Your task to perform on an android device: show emergency info Image 0: 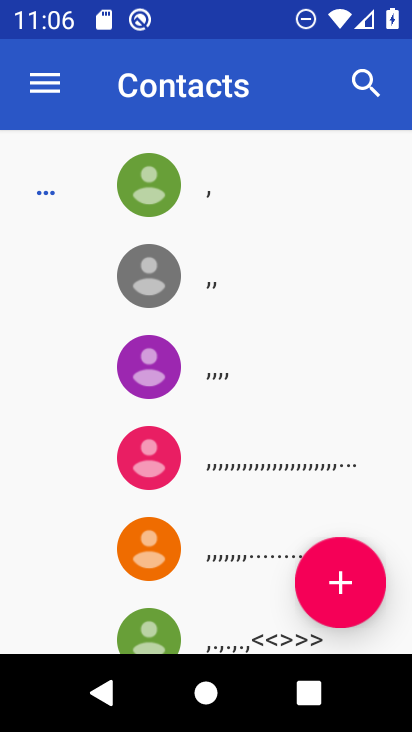
Step 0: click (334, 521)
Your task to perform on an android device: show emergency info Image 1: 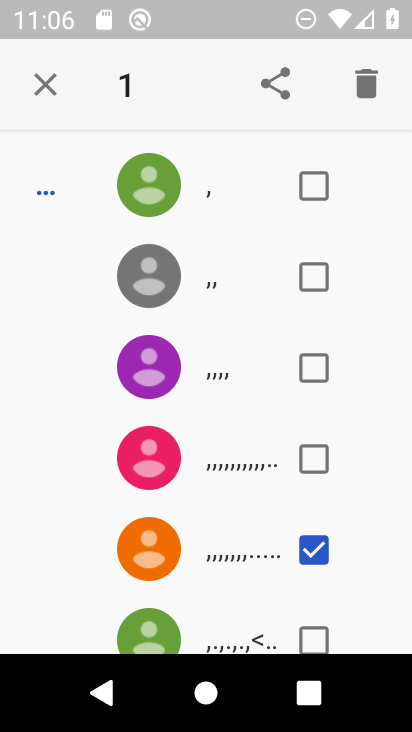
Step 1: press home button
Your task to perform on an android device: show emergency info Image 2: 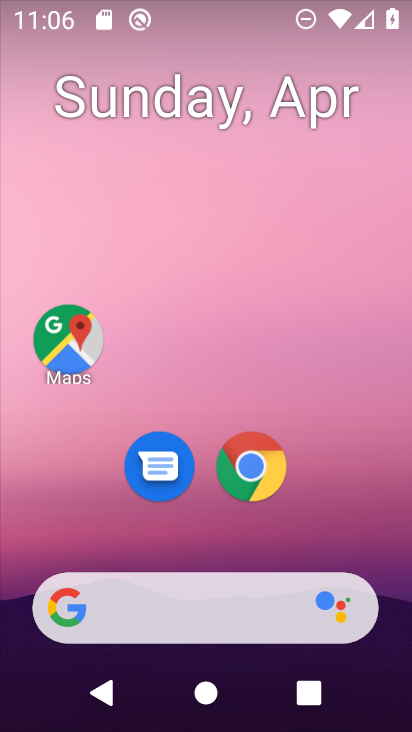
Step 2: drag from (378, 522) to (370, 107)
Your task to perform on an android device: show emergency info Image 3: 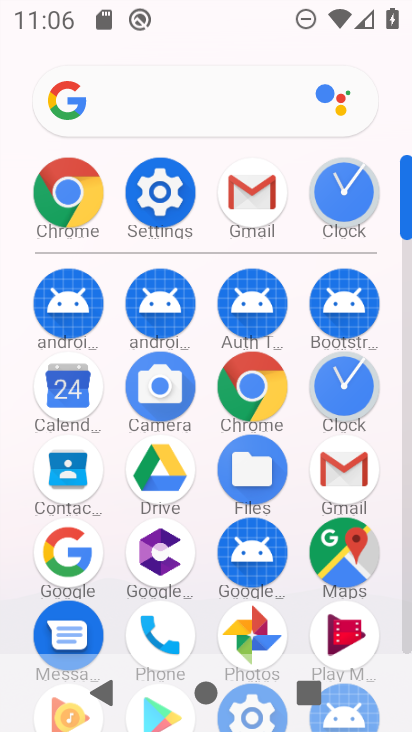
Step 3: click (159, 207)
Your task to perform on an android device: show emergency info Image 4: 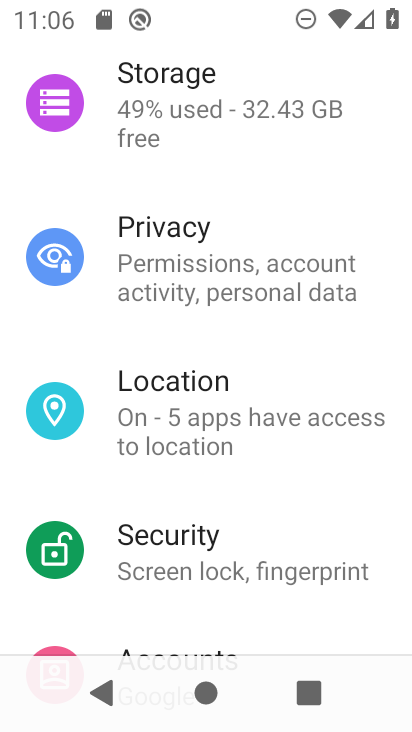
Step 4: drag from (368, 493) to (370, 346)
Your task to perform on an android device: show emergency info Image 5: 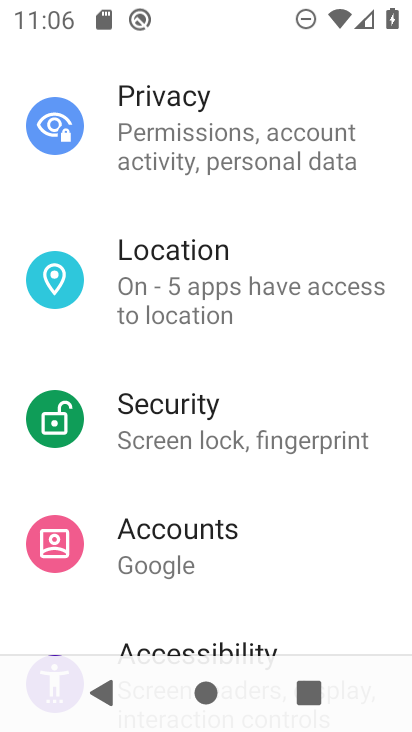
Step 5: drag from (355, 580) to (368, 396)
Your task to perform on an android device: show emergency info Image 6: 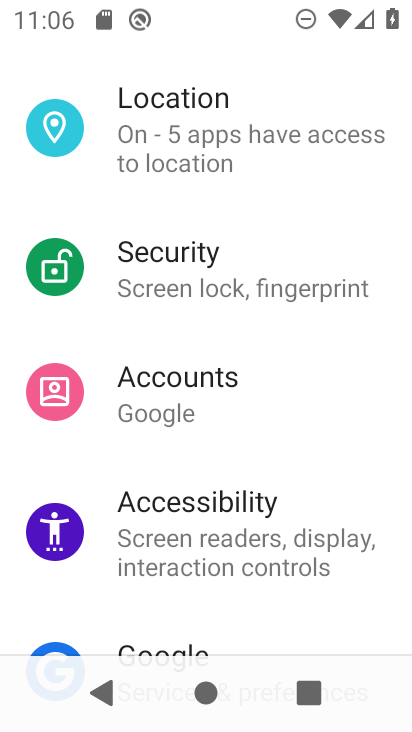
Step 6: drag from (359, 610) to (352, 380)
Your task to perform on an android device: show emergency info Image 7: 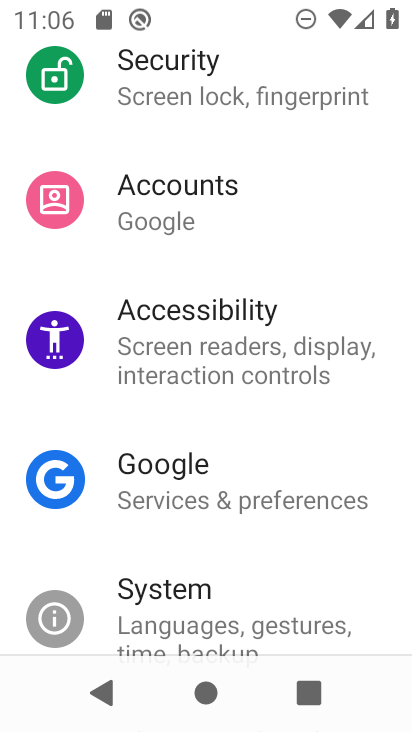
Step 7: drag from (354, 582) to (346, 400)
Your task to perform on an android device: show emergency info Image 8: 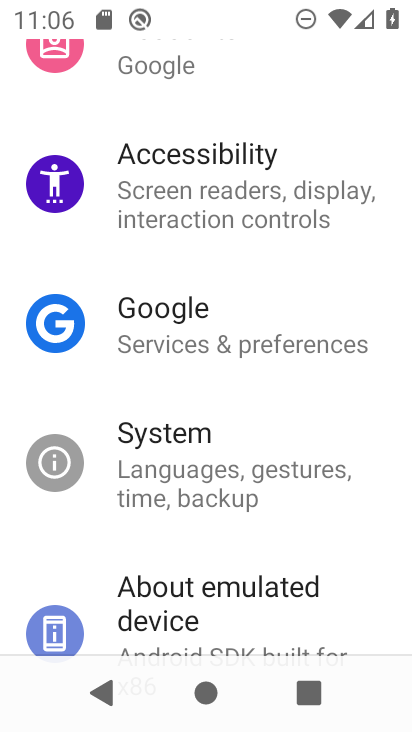
Step 8: drag from (356, 606) to (366, 413)
Your task to perform on an android device: show emergency info Image 9: 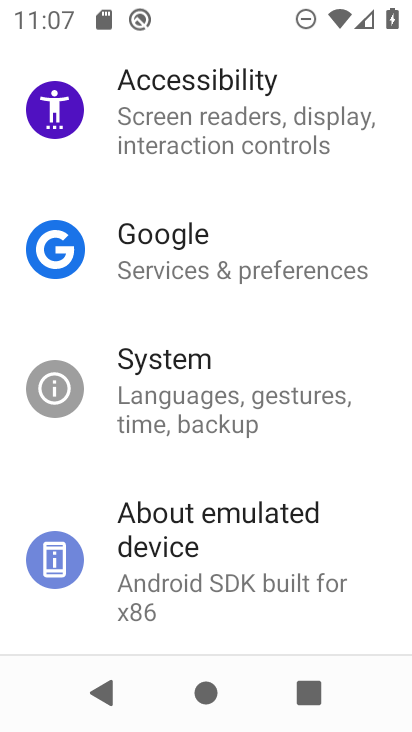
Step 9: click (275, 555)
Your task to perform on an android device: show emergency info Image 10: 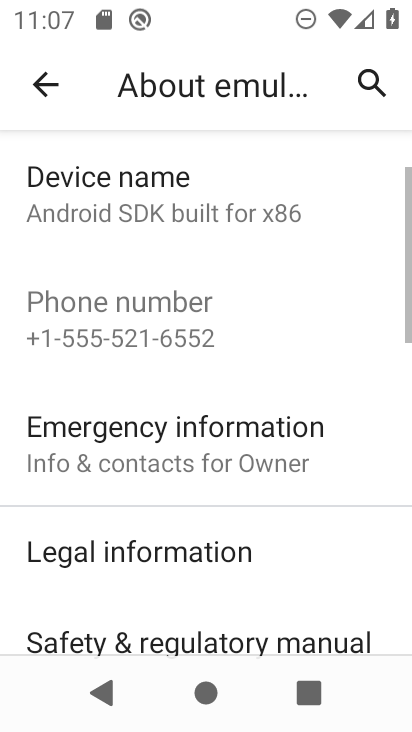
Step 10: click (278, 454)
Your task to perform on an android device: show emergency info Image 11: 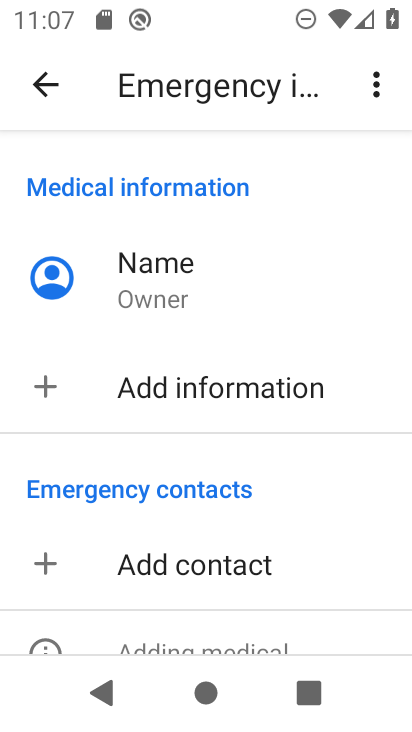
Step 11: task complete